Your task to perform on an android device: open app "Indeed Job Search" (install if not already installed) Image 0: 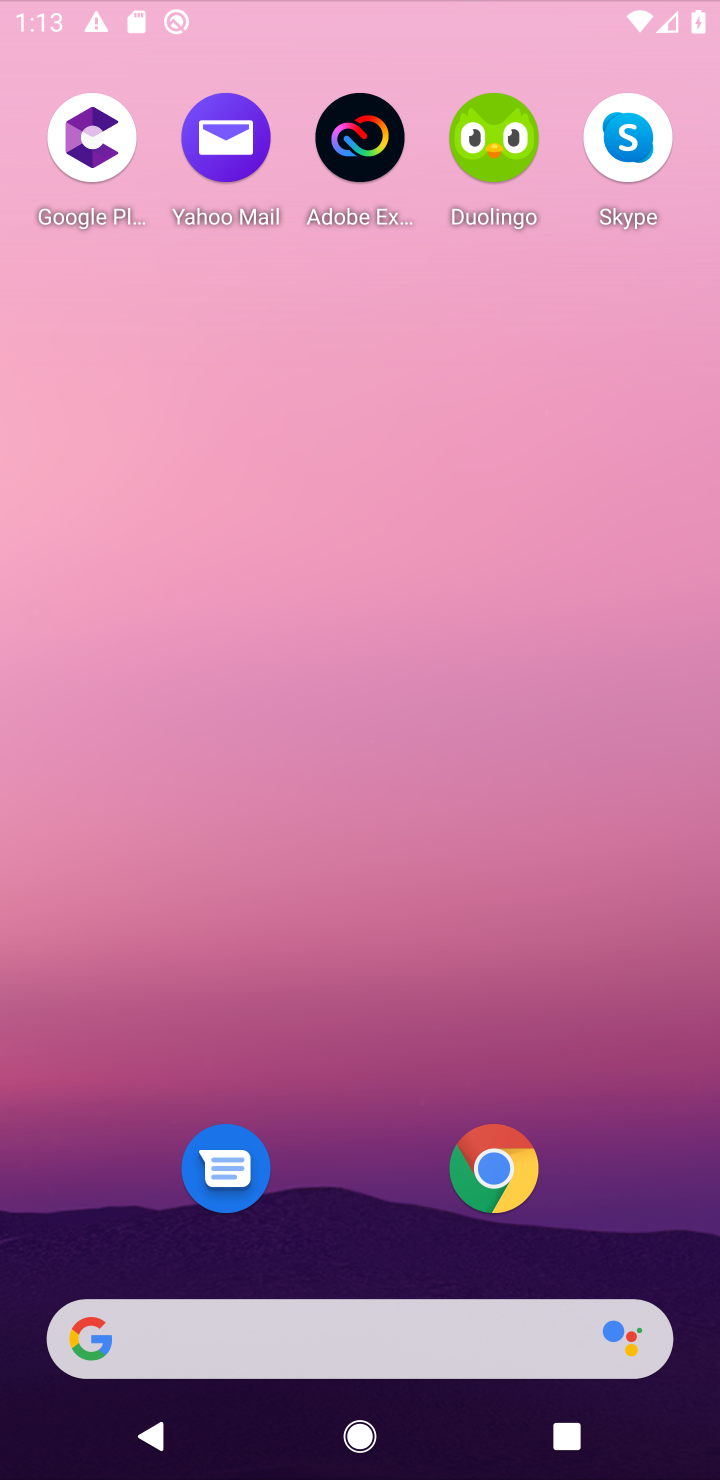
Step 0: press home button
Your task to perform on an android device: open app "Indeed Job Search" (install if not already installed) Image 1: 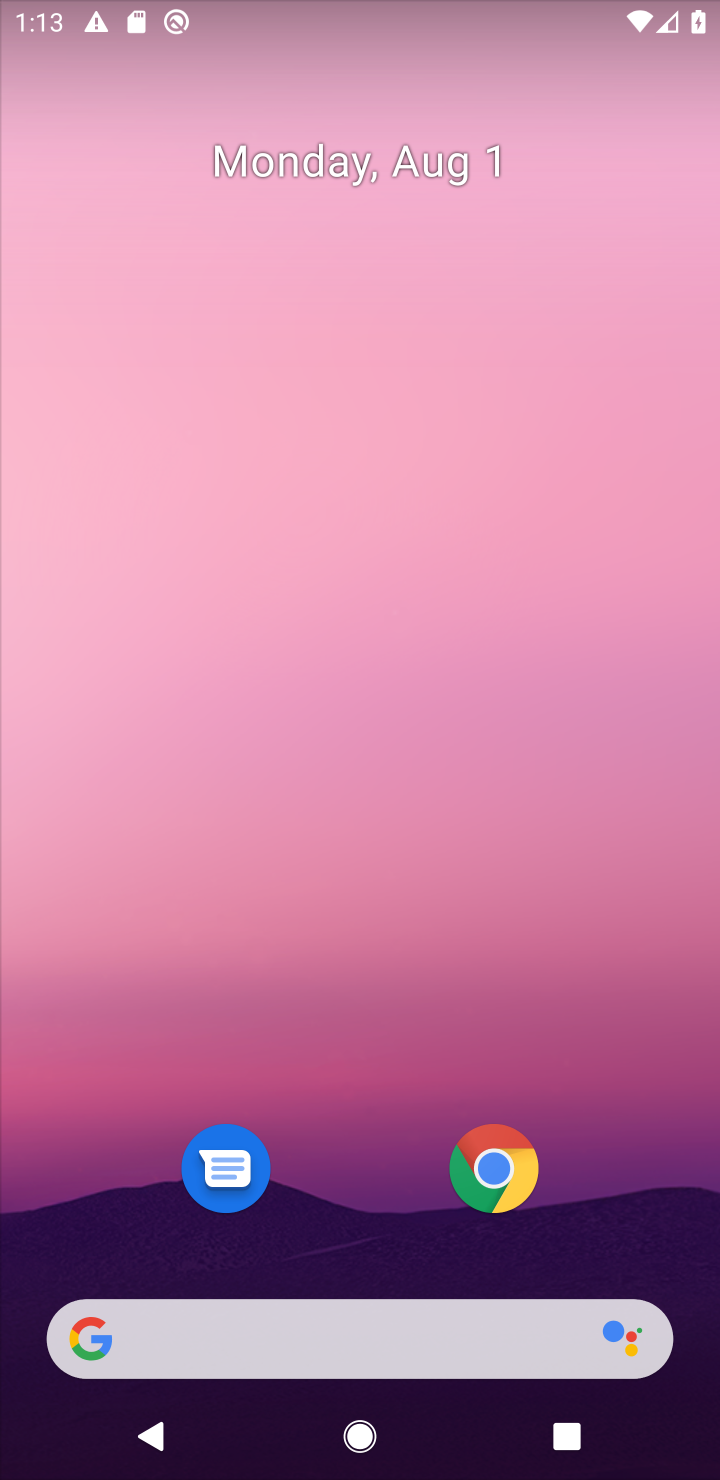
Step 1: drag from (352, 1248) to (256, 47)
Your task to perform on an android device: open app "Indeed Job Search" (install if not already installed) Image 2: 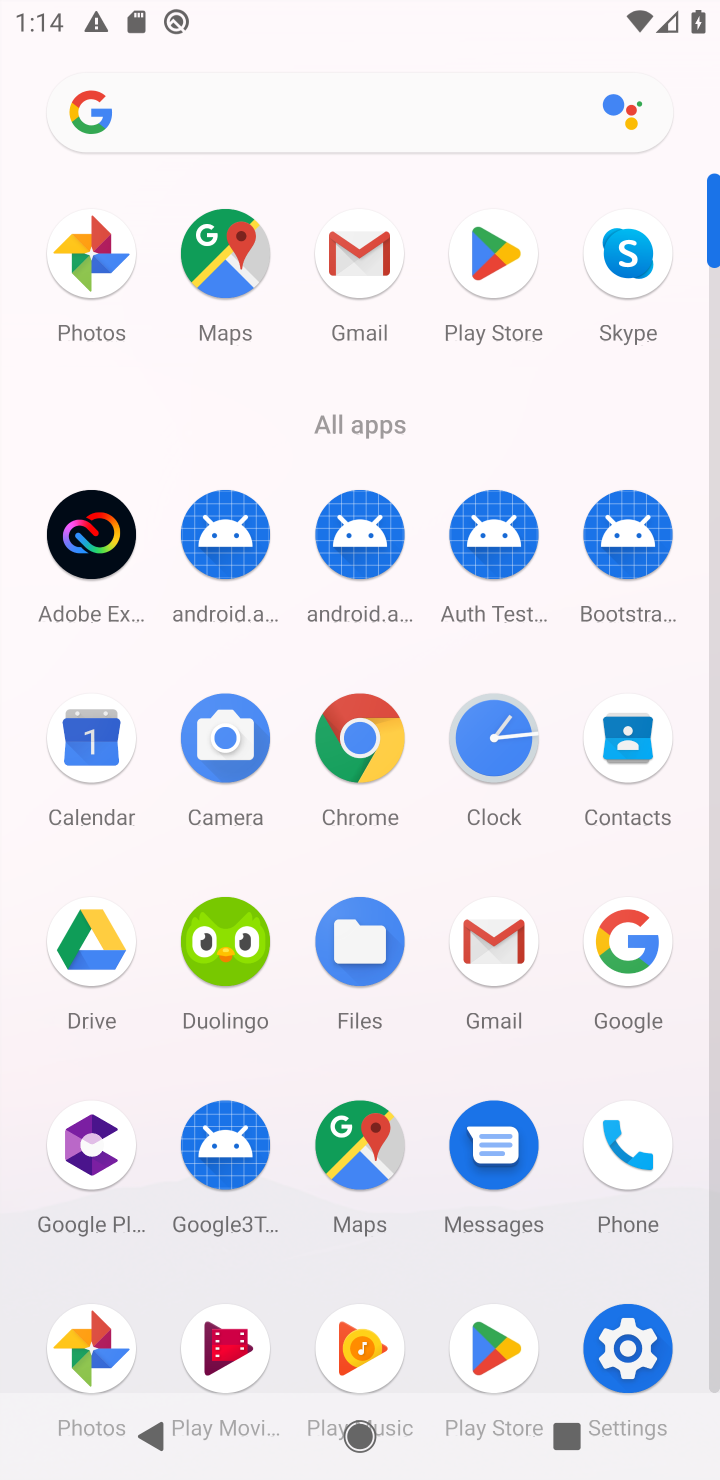
Step 2: click (471, 254)
Your task to perform on an android device: open app "Indeed Job Search" (install if not already installed) Image 3: 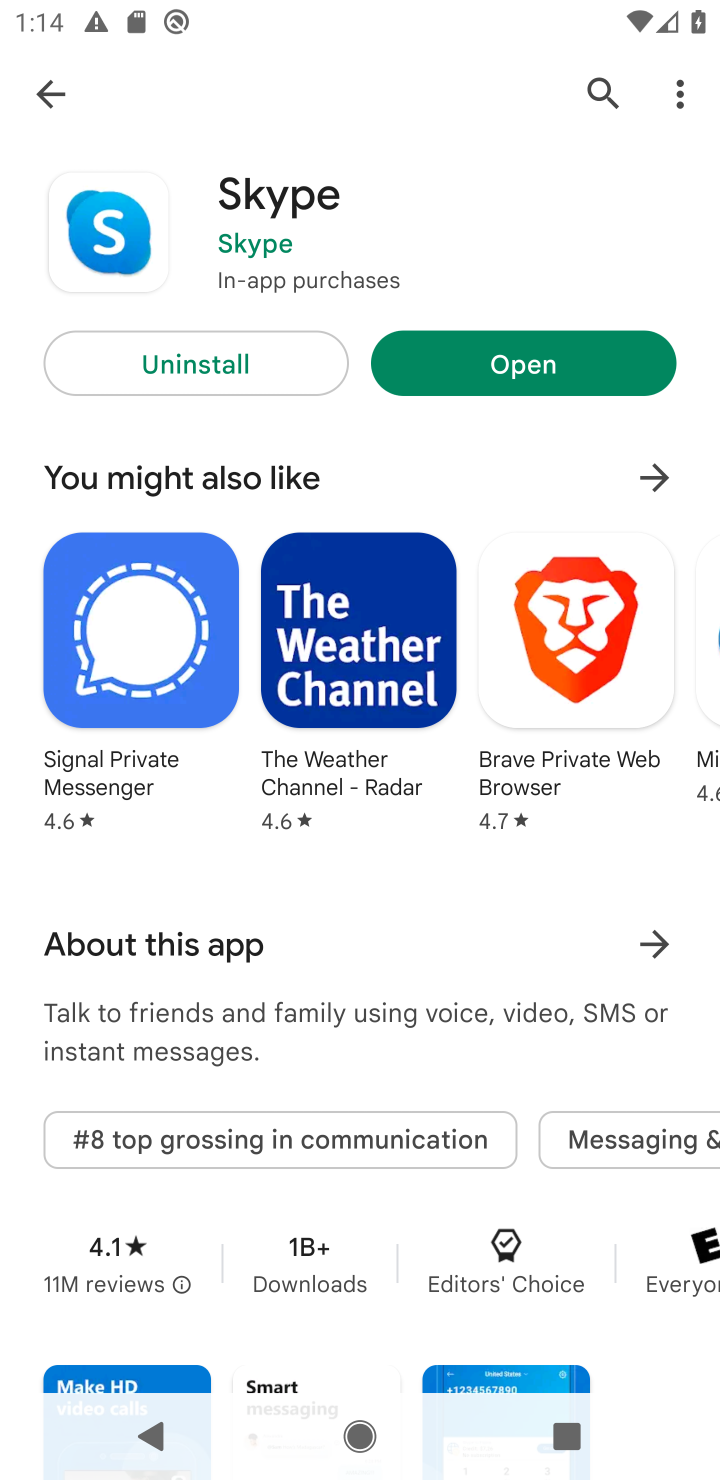
Step 3: click (602, 102)
Your task to perform on an android device: open app "Indeed Job Search" (install if not already installed) Image 4: 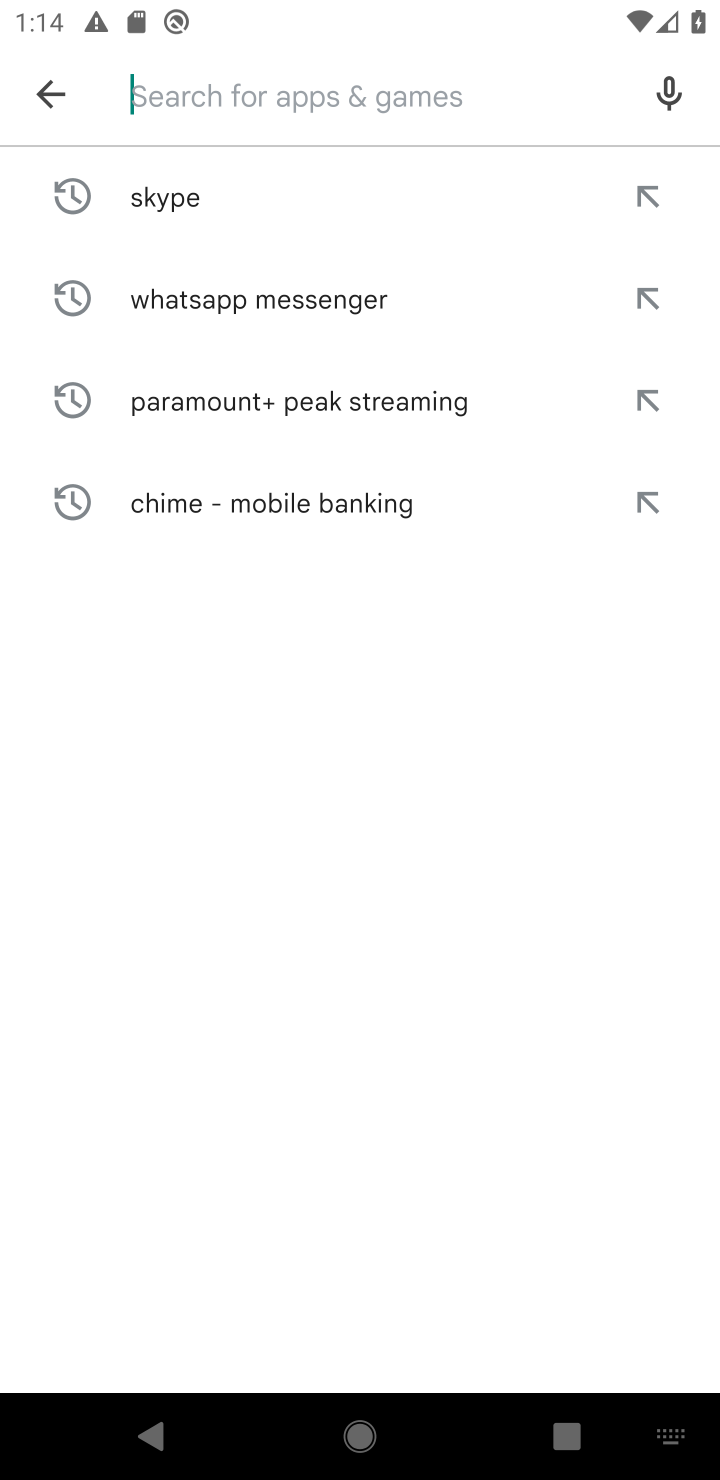
Step 4: type "indeed job search"
Your task to perform on an android device: open app "Indeed Job Search" (install if not already installed) Image 5: 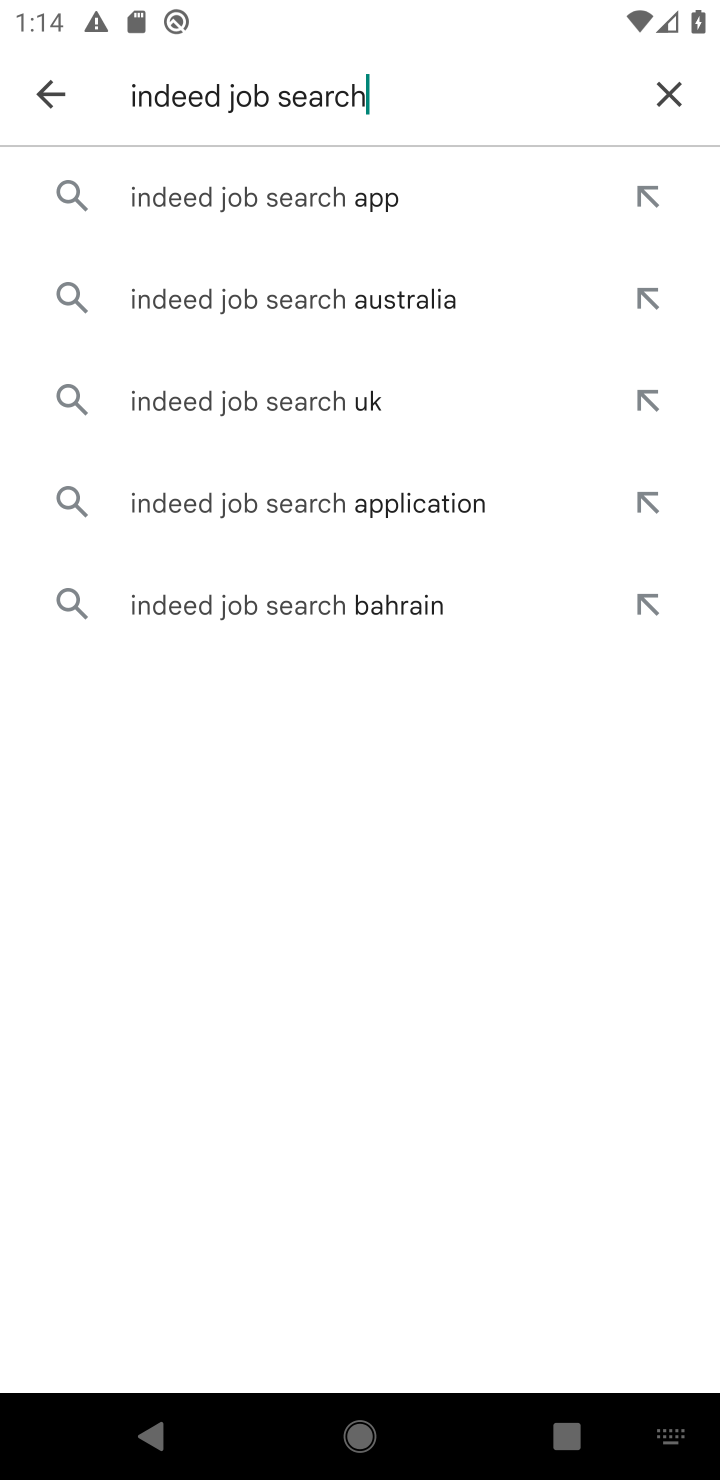
Step 5: click (388, 198)
Your task to perform on an android device: open app "Indeed Job Search" (install if not already installed) Image 6: 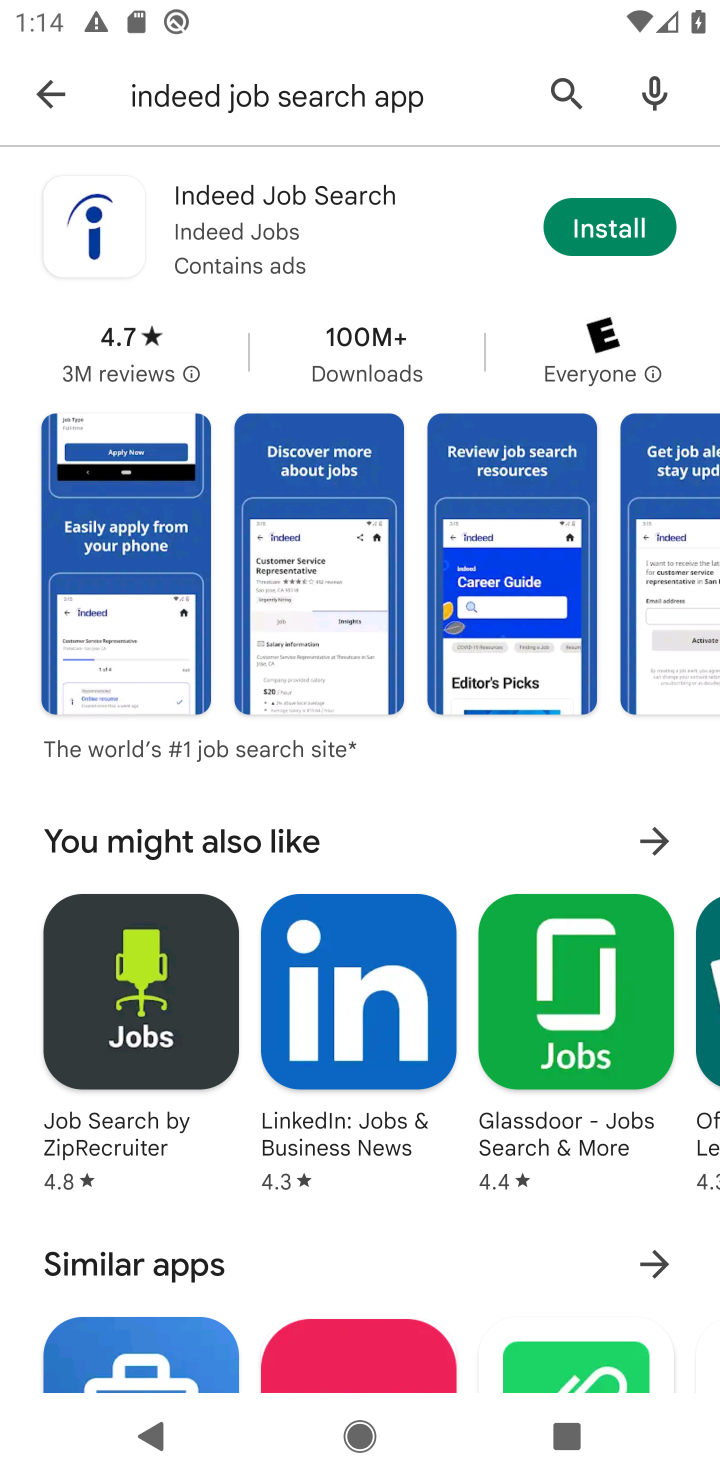
Step 6: click (278, 190)
Your task to perform on an android device: open app "Indeed Job Search" (install if not already installed) Image 7: 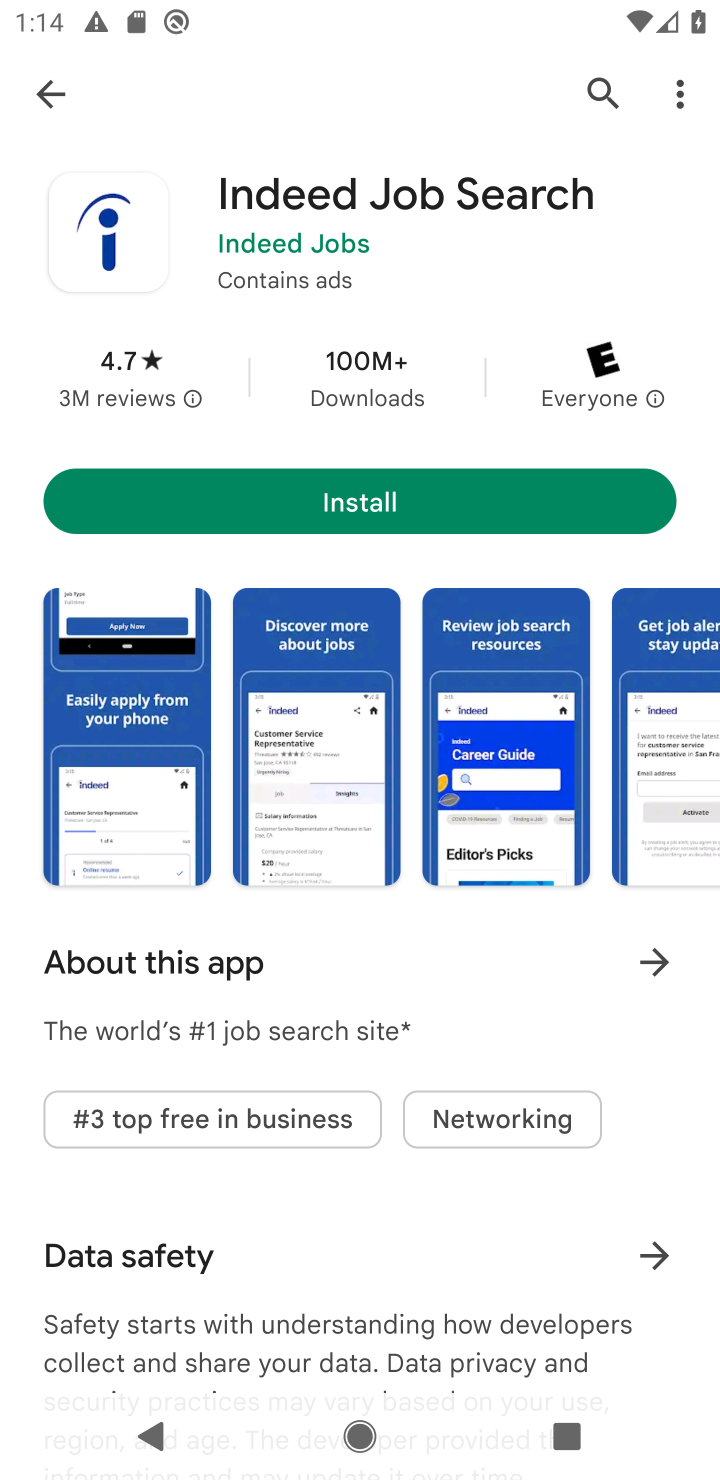
Step 7: click (468, 507)
Your task to perform on an android device: open app "Indeed Job Search" (install if not already installed) Image 8: 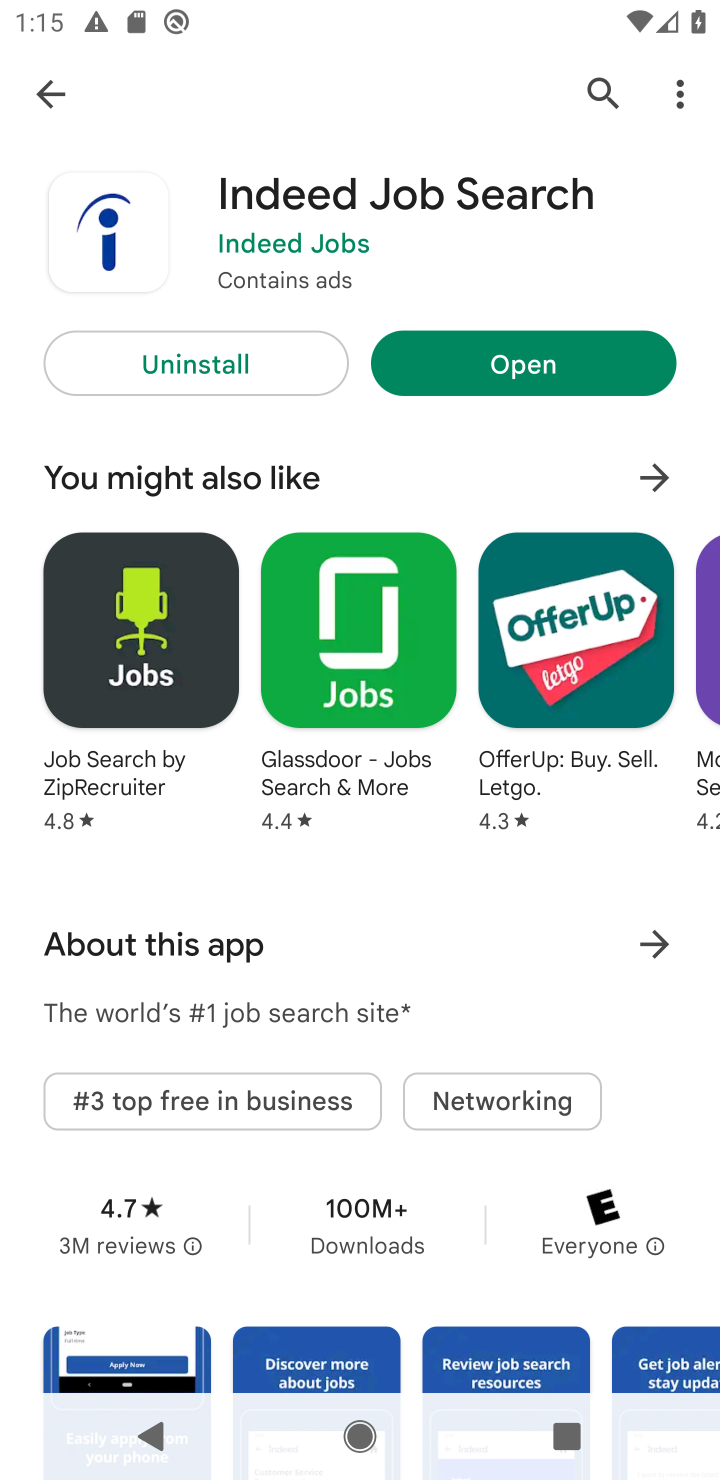
Step 8: click (476, 368)
Your task to perform on an android device: open app "Indeed Job Search" (install if not already installed) Image 9: 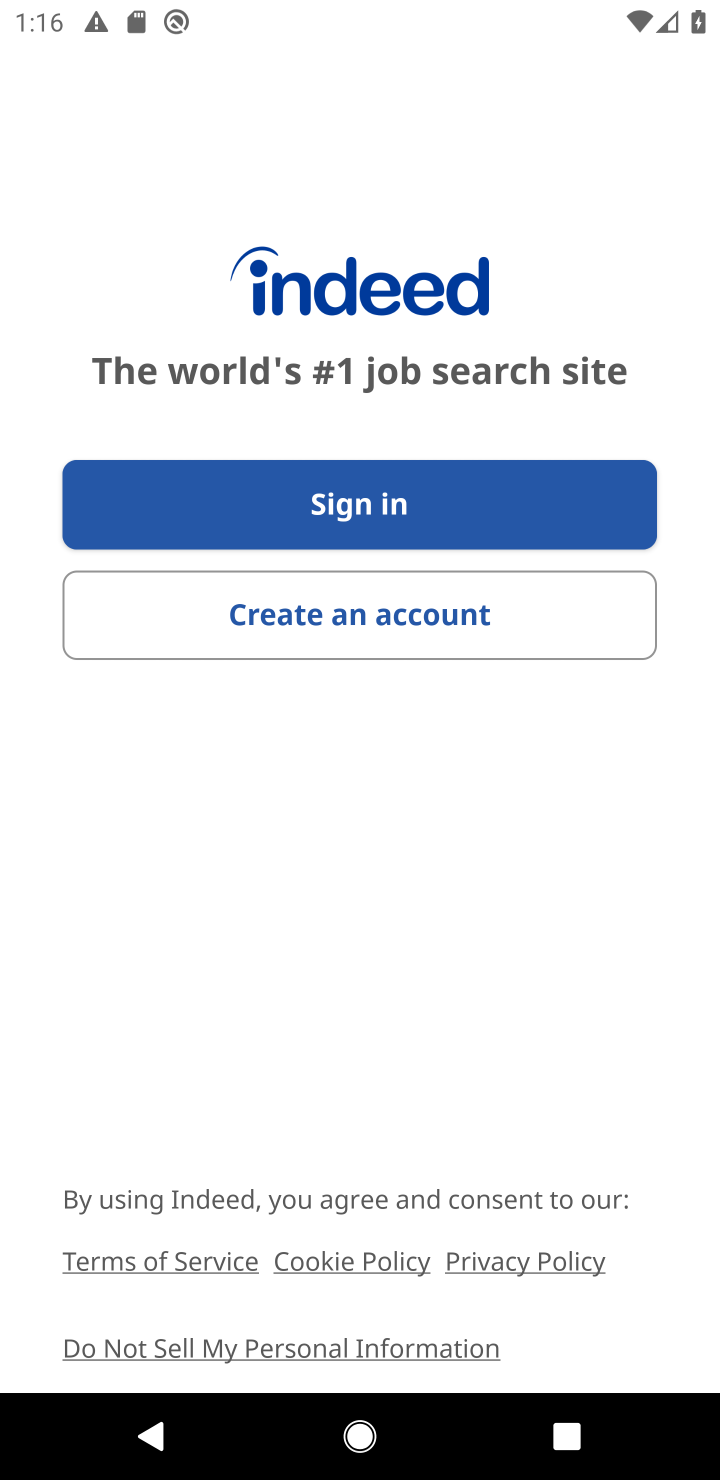
Step 9: task complete